Your task to perform on an android device: open chrome and create a bookmark for the current page Image 0: 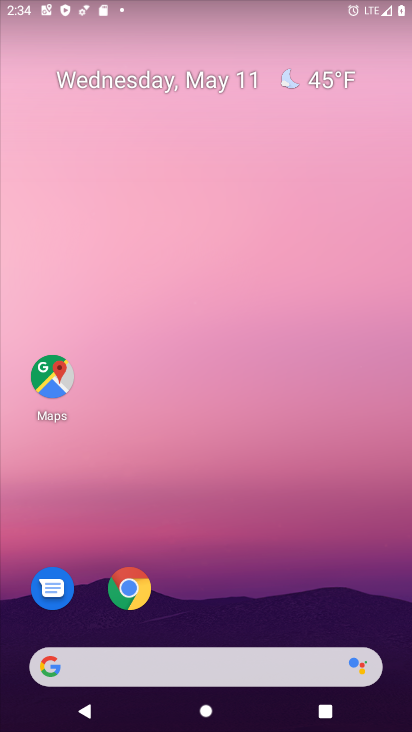
Step 0: click (128, 589)
Your task to perform on an android device: open chrome and create a bookmark for the current page Image 1: 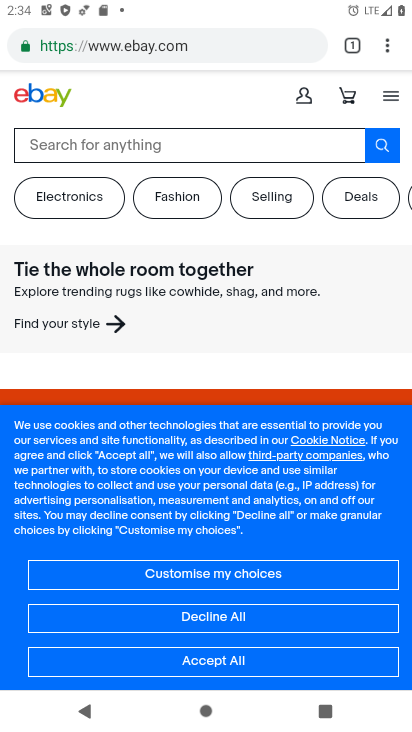
Step 1: click (353, 43)
Your task to perform on an android device: open chrome and create a bookmark for the current page Image 2: 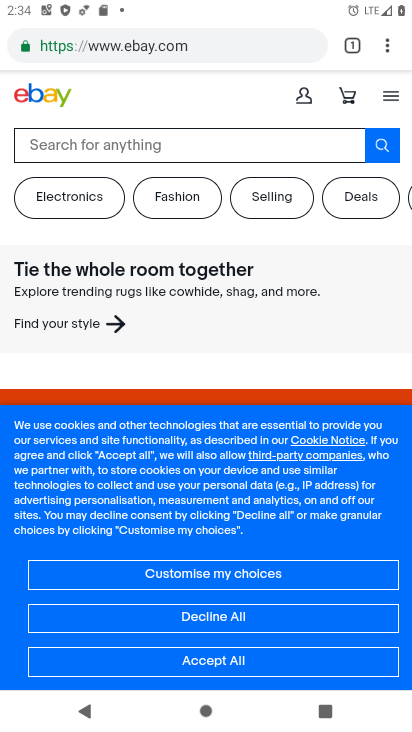
Step 2: click (356, 43)
Your task to perform on an android device: open chrome and create a bookmark for the current page Image 3: 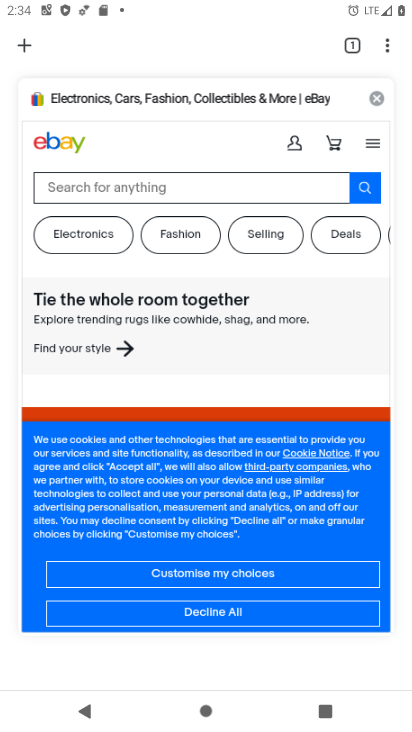
Step 3: click (24, 44)
Your task to perform on an android device: open chrome and create a bookmark for the current page Image 4: 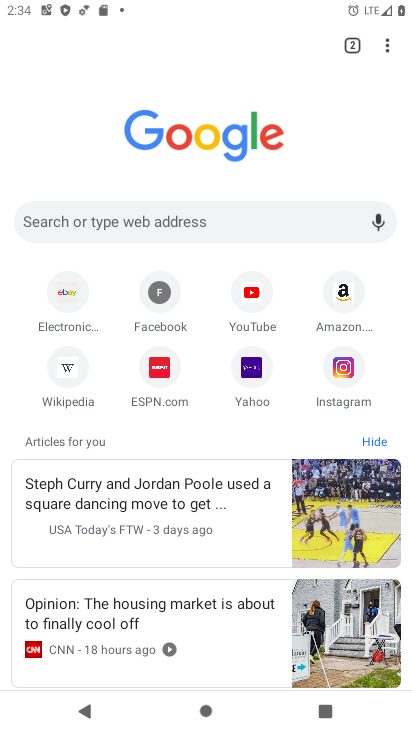
Step 4: click (226, 222)
Your task to perform on an android device: open chrome and create a bookmark for the current page Image 5: 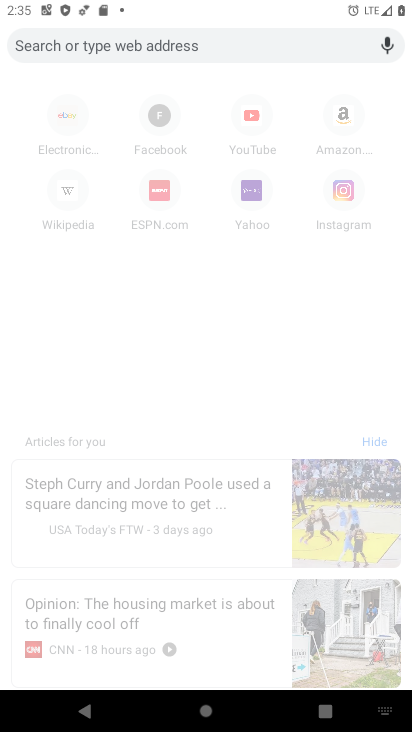
Step 5: type "sdff"
Your task to perform on an android device: open chrome and create a bookmark for the current page Image 6: 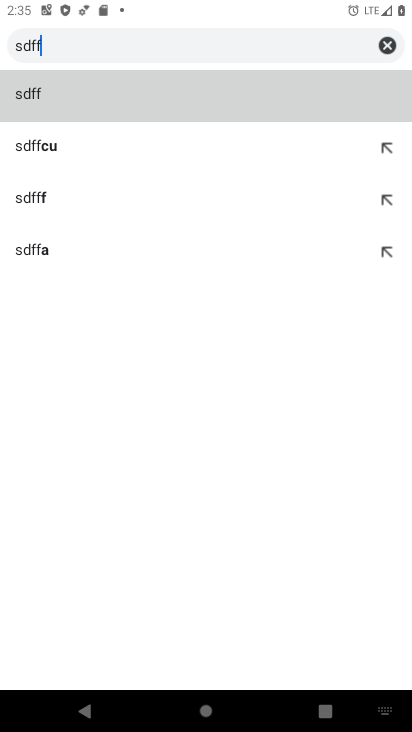
Step 6: click (85, 143)
Your task to perform on an android device: open chrome and create a bookmark for the current page Image 7: 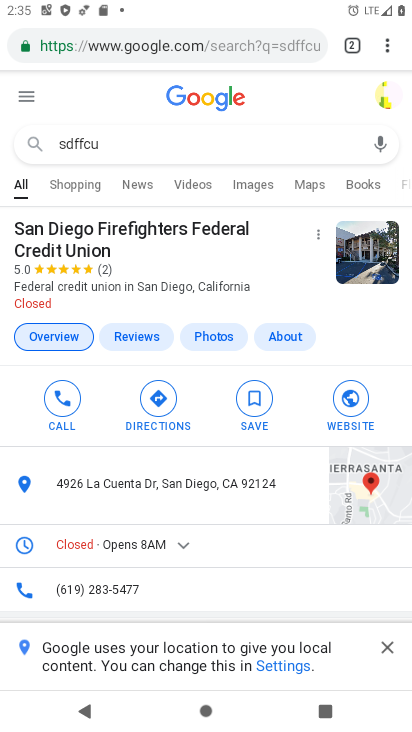
Step 7: drag from (186, 555) to (244, 262)
Your task to perform on an android device: open chrome and create a bookmark for the current page Image 8: 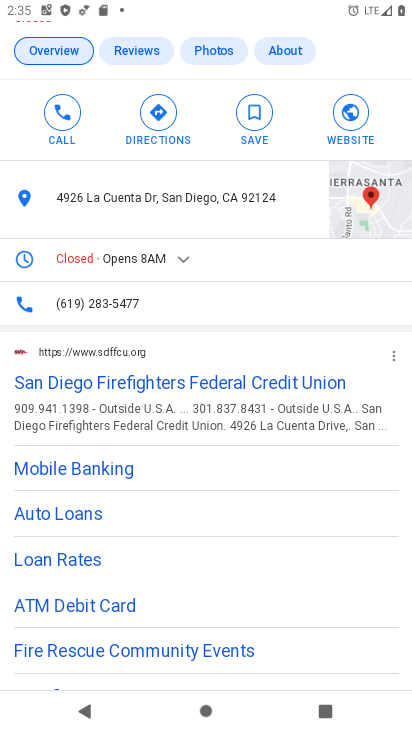
Step 8: click (140, 379)
Your task to perform on an android device: open chrome and create a bookmark for the current page Image 9: 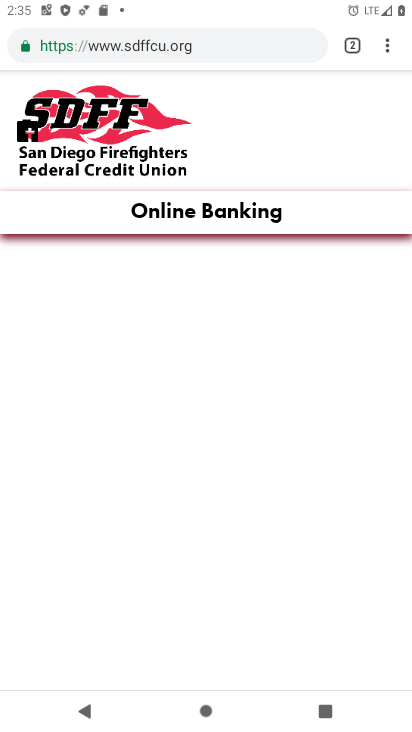
Step 9: click (386, 42)
Your task to perform on an android device: open chrome and create a bookmark for the current page Image 10: 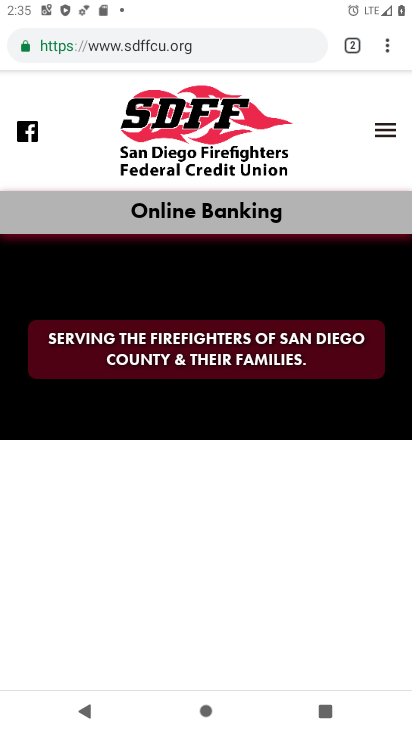
Step 10: task complete